Your task to perform on an android device: Show me popular games on the Play Store Image 0: 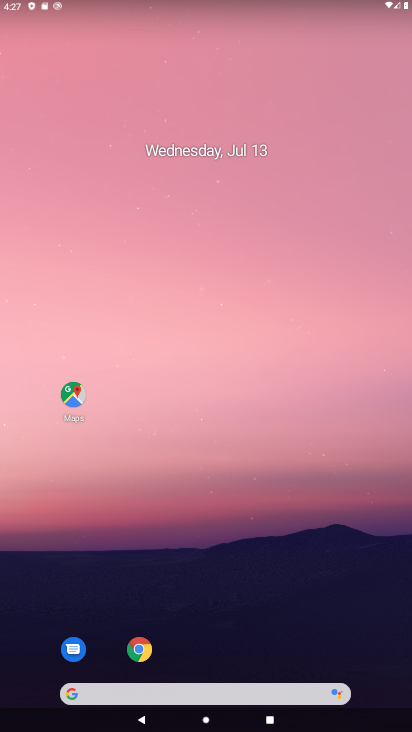
Step 0: drag from (236, 631) to (279, 91)
Your task to perform on an android device: Show me popular games on the Play Store Image 1: 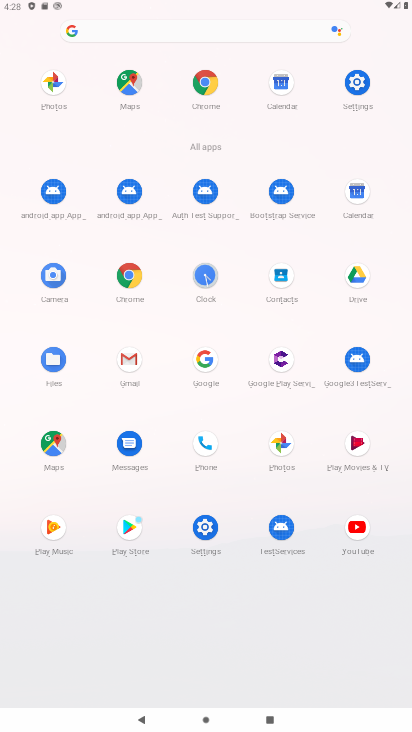
Step 1: click (127, 522)
Your task to perform on an android device: Show me popular games on the Play Store Image 2: 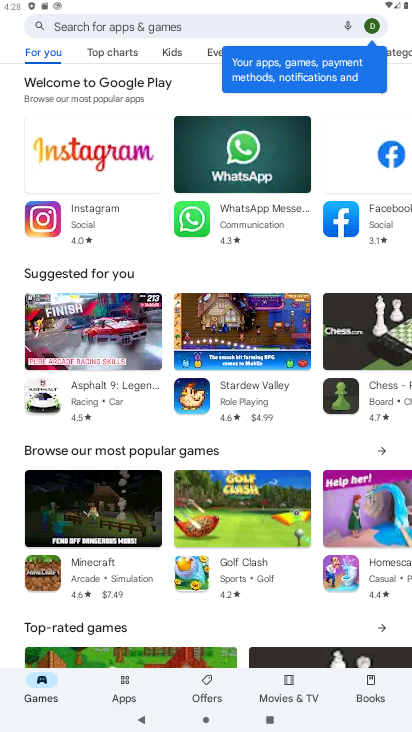
Step 2: click (132, 38)
Your task to perform on an android device: Show me popular games on the Play Store Image 3: 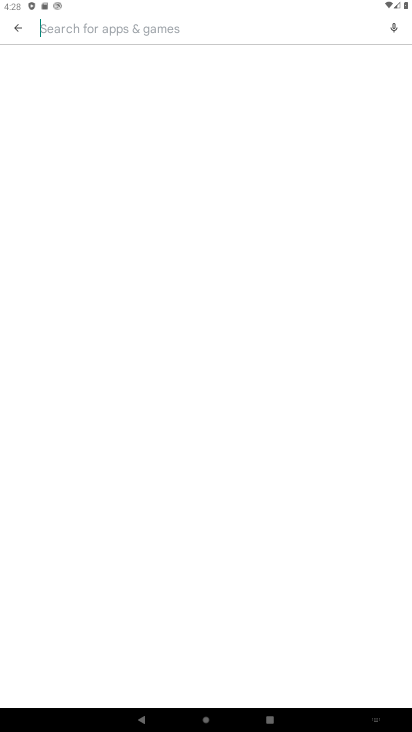
Step 3: type "popular games"
Your task to perform on an android device: Show me popular games on the Play Store Image 4: 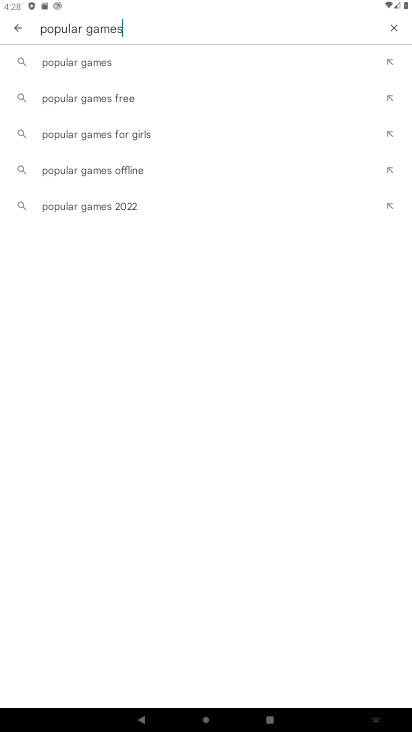
Step 4: click (81, 62)
Your task to perform on an android device: Show me popular games on the Play Store Image 5: 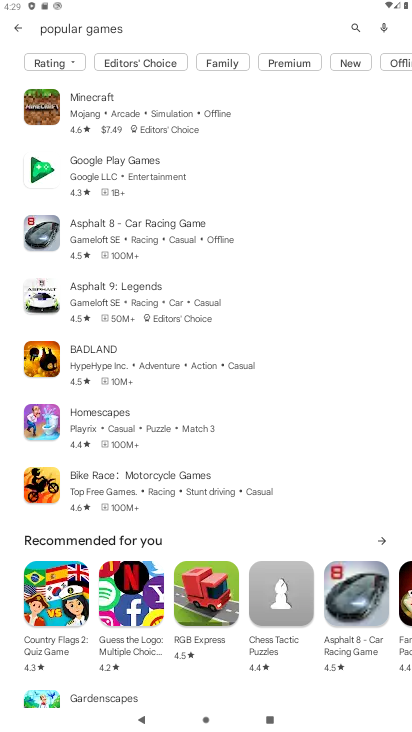
Step 5: task complete